Your task to perform on an android device: make emails show in primary in the gmail app Image 0: 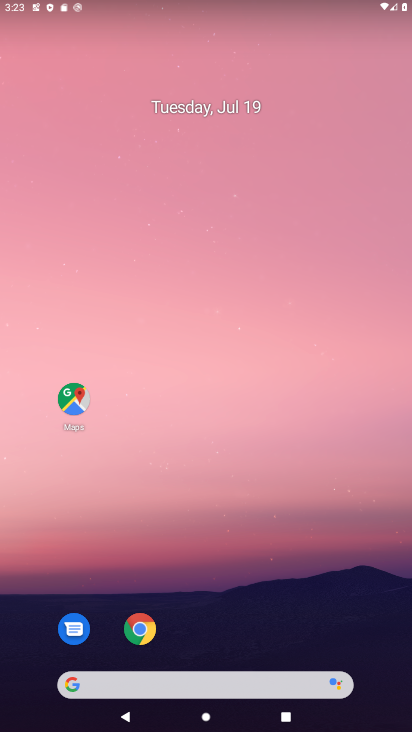
Step 0: drag from (197, 680) to (213, 171)
Your task to perform on an android device: make emails show in primary in the gmail app Image 1: 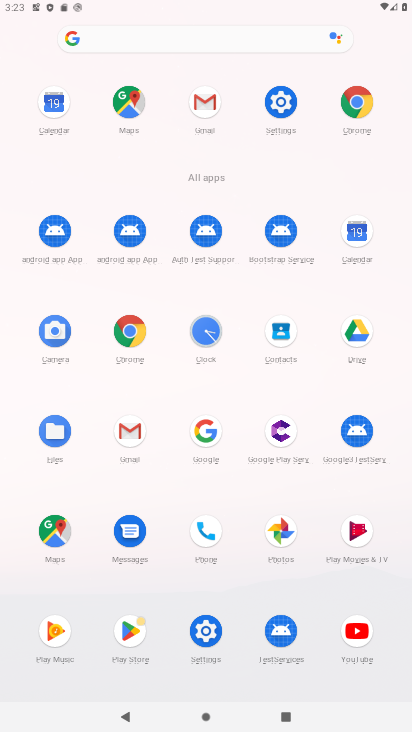
Step 1: click (198, 103)
Your task to perform on an android device: make emails show in primary in the gmail app Image 2: 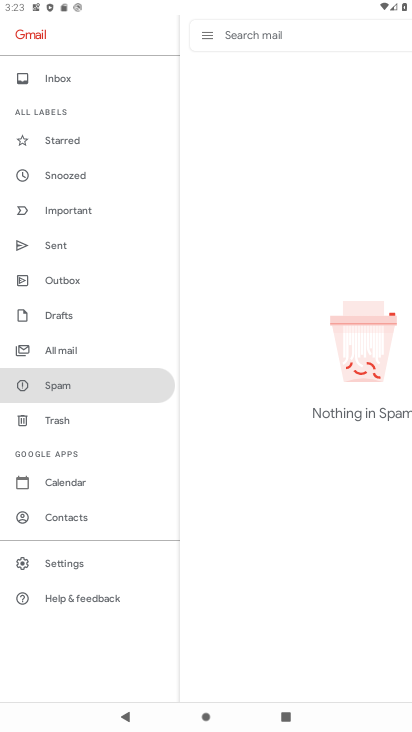
Step 2: click (61, 559)
Your task to perform on an android device: make emails show in primary in the gmail app Image 3: 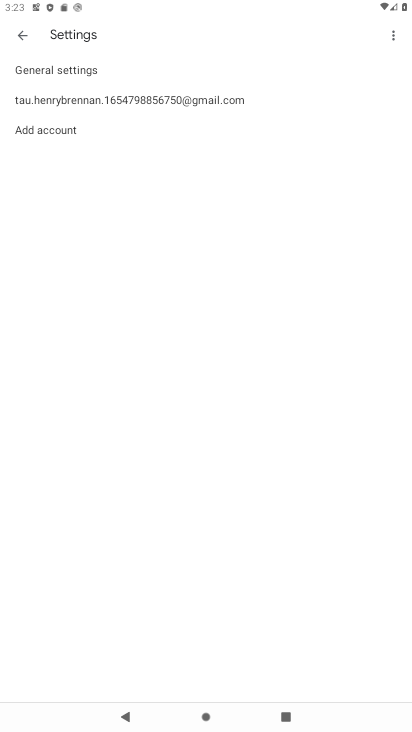
Step 3: click (54, 103)
Your task to perform on an android device: make emails show in primary in the gmail app Image 4: 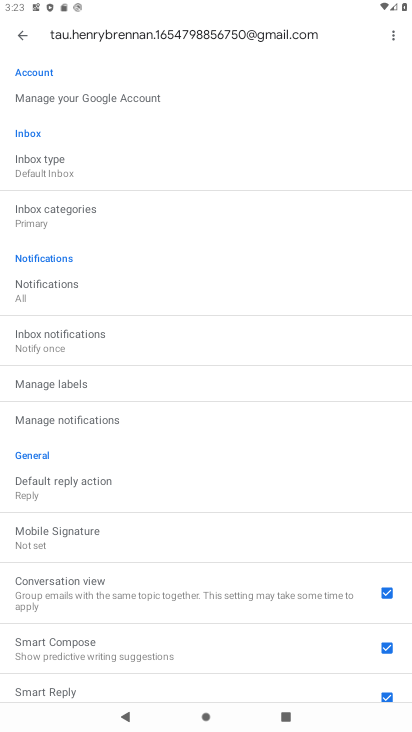
Step 4: task complete